Your task to perform on an android device: Is it going to rain tomorrow? Image 0: 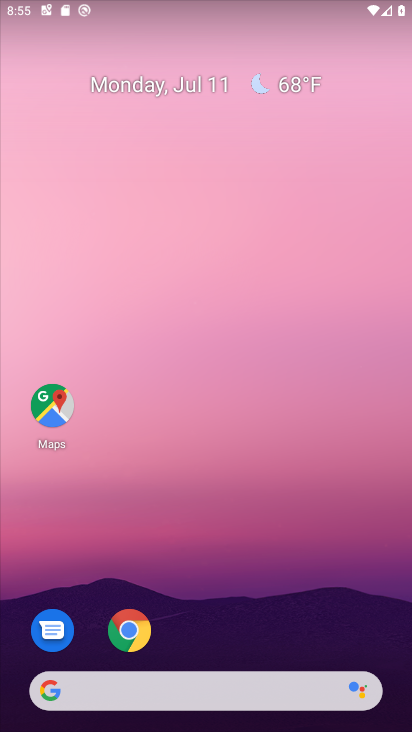
Step 0: drag from (233, 628) to (261, 60)
Your task to perform on an android device: Is it going to rain tomorrow? Image 1: 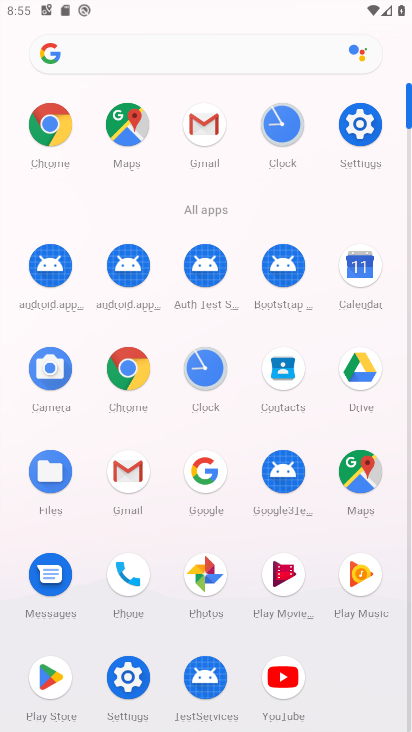
Step 1: click (182, 56)
Your task to perform on an android device: Is it going to rain tomorrow? Image 2: 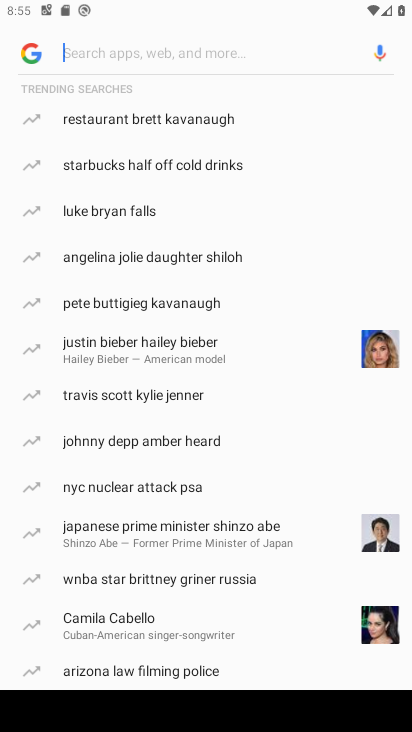
Step 2: type "weather"
Your task to perform on an android device: Is it going to rain tomorrow? Image 3: 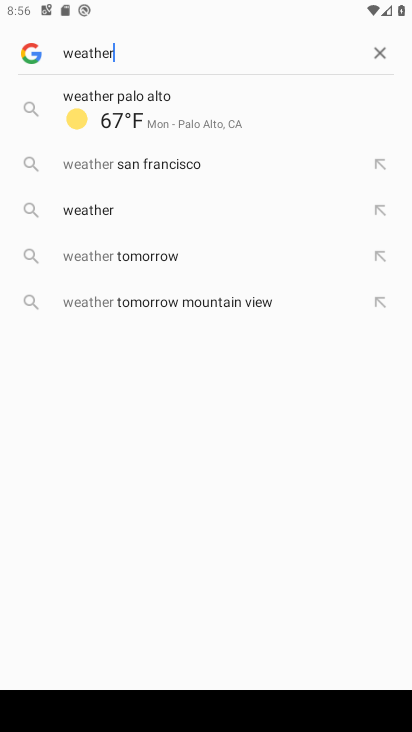
Step 3: click (118, 216)
Your task to perform on an android device: Is it going to rain tomorrow? Image 4: 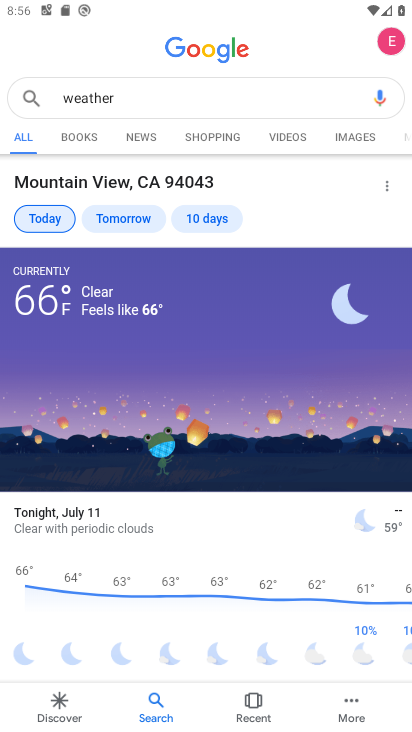
Step 4: click (117, 219)
Your task to perform on an android device: Is it going to rain tomorrow? Image 5: 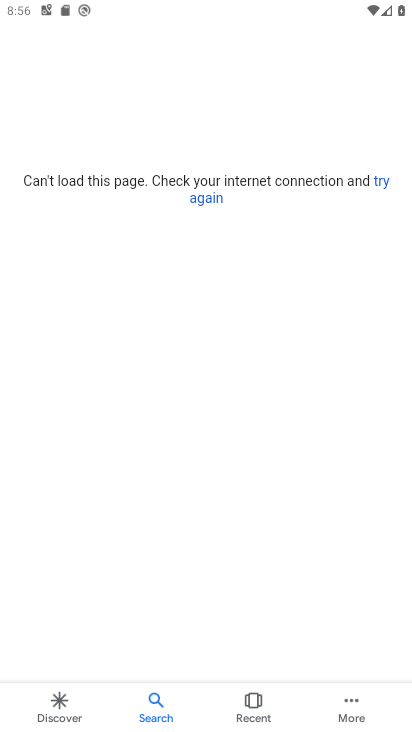
Step 5: click (200, 204)
Your task to perform on an android device: Is it going to rain tomorrow? Image 6: 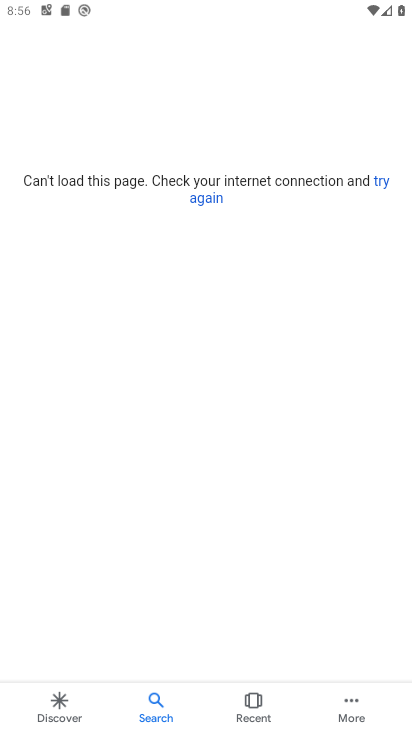
Step 6: click (205, 202)
Your task to perform on an android device: Is it going to rain tomorrow? Image 7: 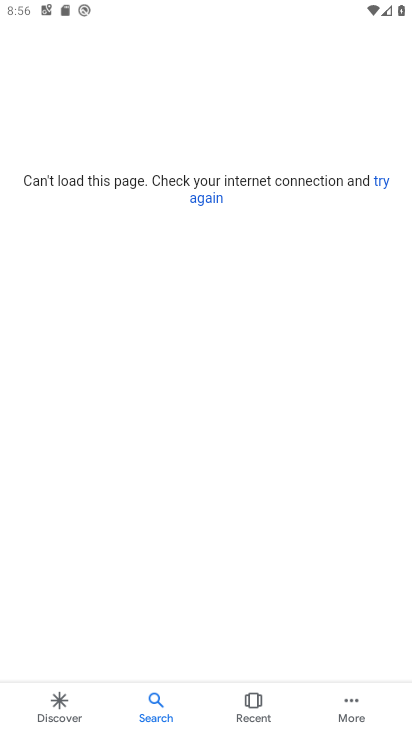
Step 7: click (208, 193)
Your task to perform on an android device: Is it going to rain tomorrow? Image 8: 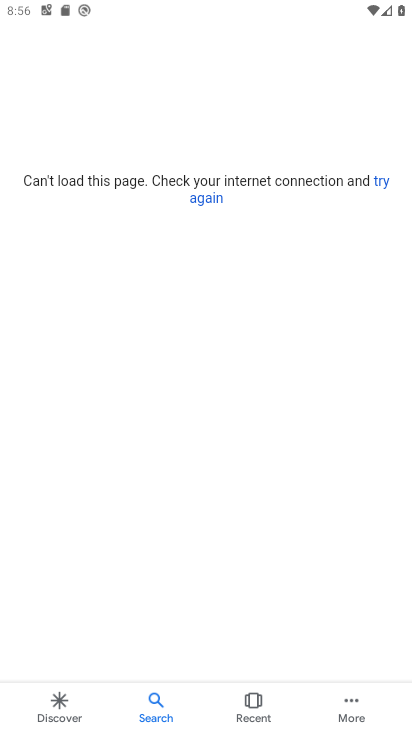
Step 8: click (208, 197)
Your task to perform on an android device: Is it going to rain tomorrow? Image 9: 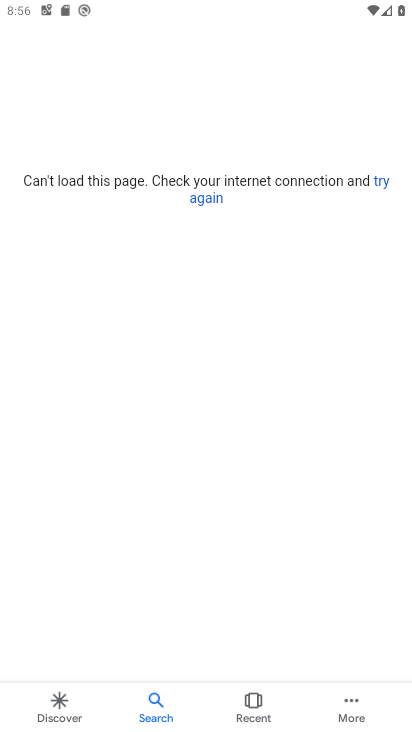
Step 9: click (207, 200)
Your task to perform on an android device: Is it going to rain tomorrow? Image 10: 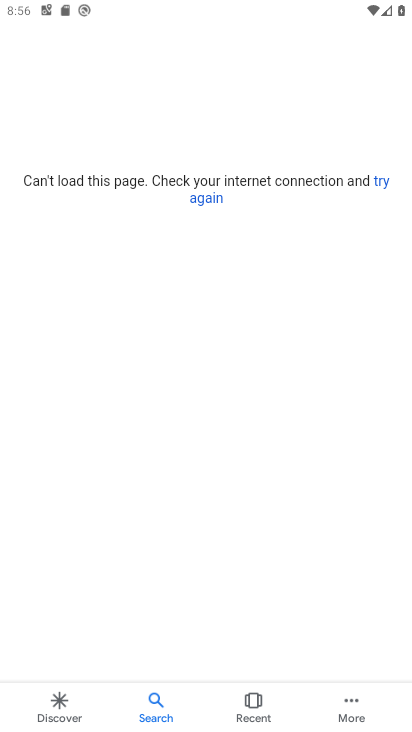
Step 10: click (207, 202)
Your task to perform on an android device: Is it going to rain tomorrow? Image 11: 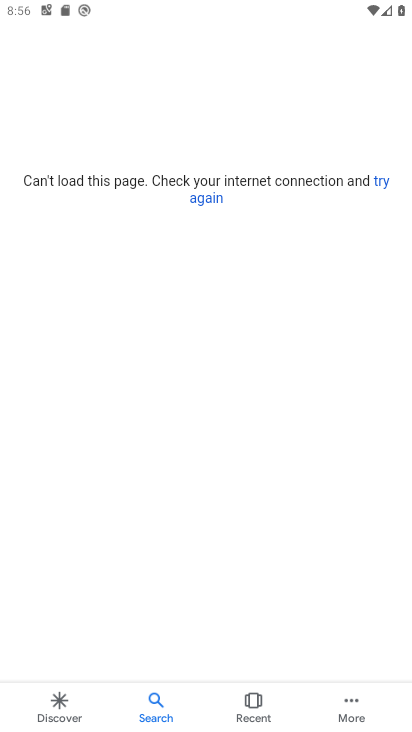
Step 11: click (378, 175)
Your task to perform on an android device: Is it going to rain tomorrow? Image 12: 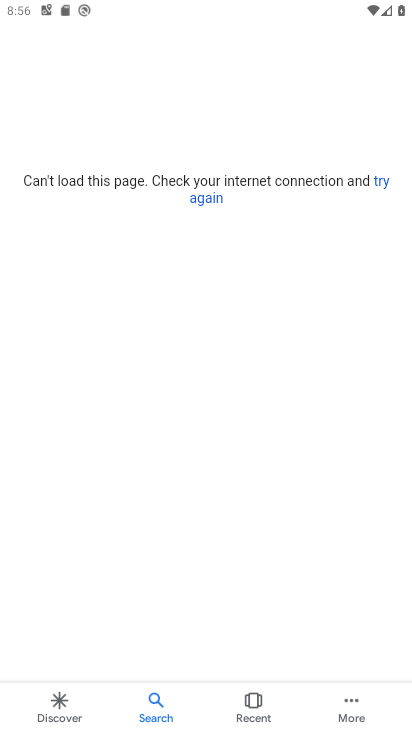
Step 12: click (378, 178)
Your task to perform on an android device: Is it going to rain tomorrow? Image 13: 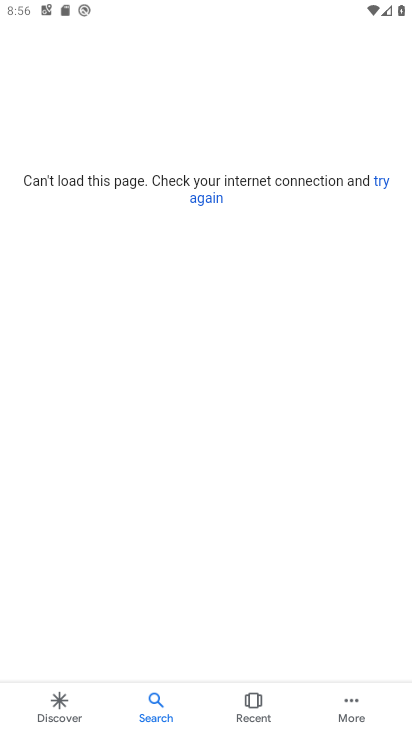
Step 13: task complete